Your task to perform on an android device: turn off location Image 0: 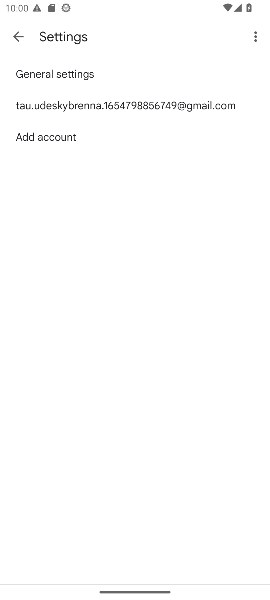
Step 0: press home button
Your task to perform on an android device: turn off location Image 1: 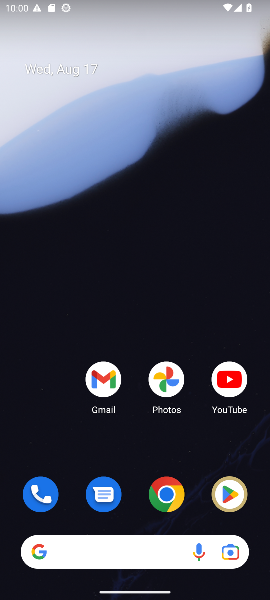
Step 1: drag from (195, 453) to (204, 152)
Your task to perform on an android device: turn off location Image 2: 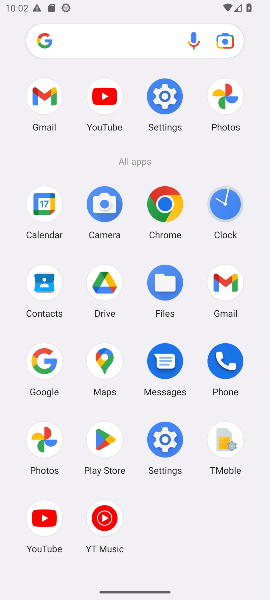
Step 2: click (166, 431)
Your task to perform on an android device: turn off location Image 3: 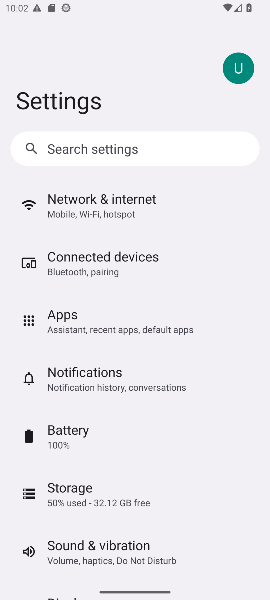
Step 3: drag from (144, 442) to (148, 43)
Your task to perform on an android device: turn off location Image 4: 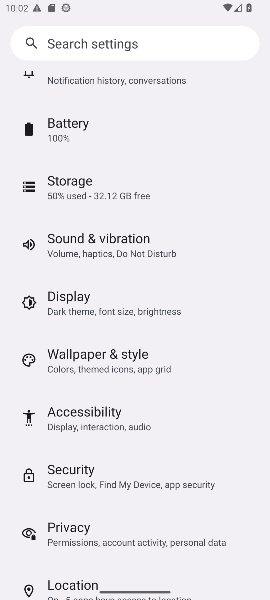
Step 4: click (76, 583)
Your task to perform on an android device: turn off location Image 5: 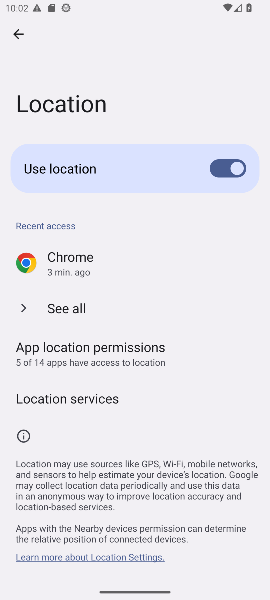
Step 5: click (208, 168)
Your task to perform on an android device: turn off location Image 6: 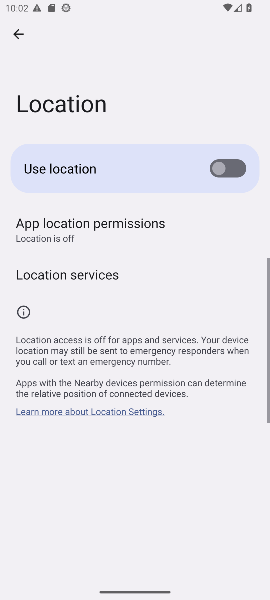
Step 6: task complete